Your task to perform on an android device: Open location settings Image 0: 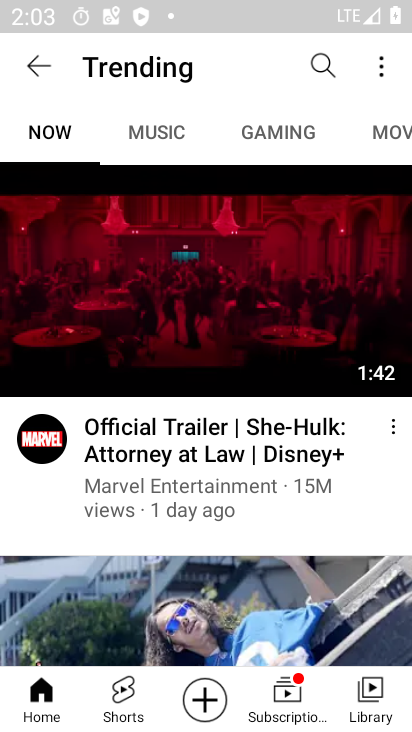
Step 0: press home button
Your task to perform on an android device: Open location settings Image 1: 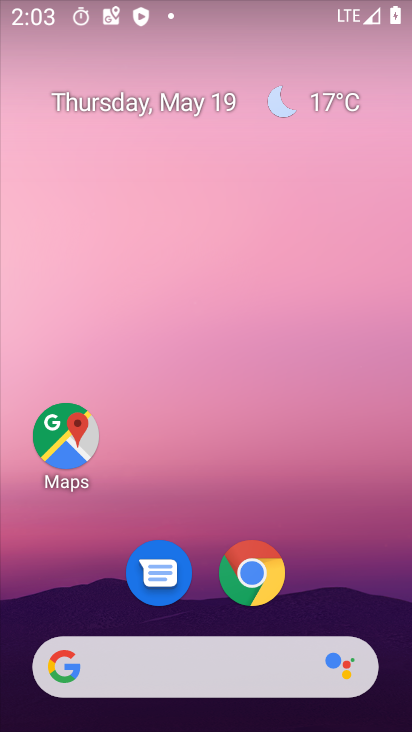
Step 1: drag from (197, 548) to (268, 89)
Your task to perform on an android device: Open location settings Image 2: 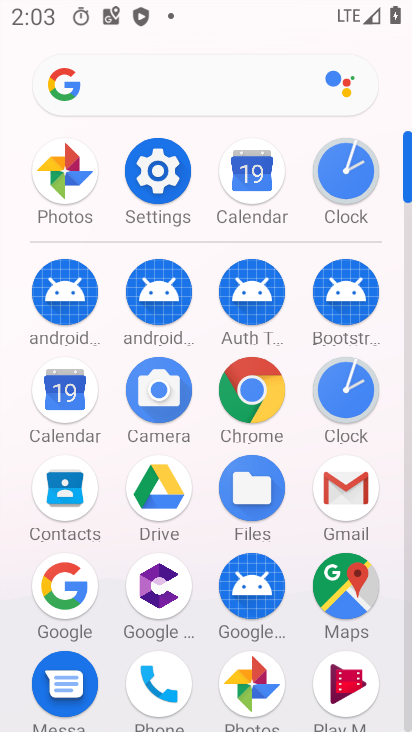
Step 2: click (167, 167)
Your task to perform on an android device: Open location settings Image 3: 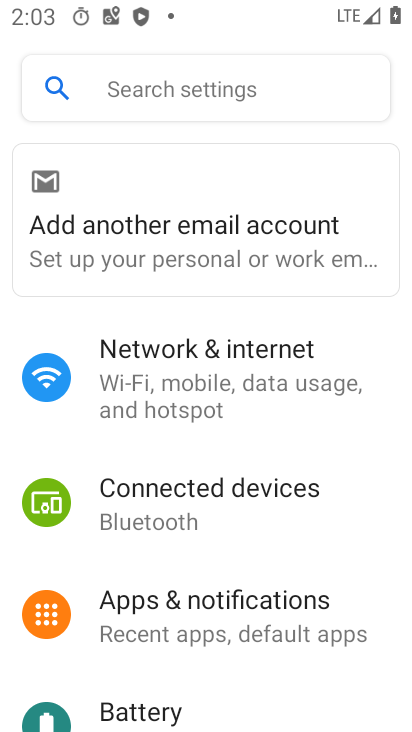
Step 3: drag from (228, 583) to (329, 112)
Your task to perform on an android device: Open location settings Image 4: 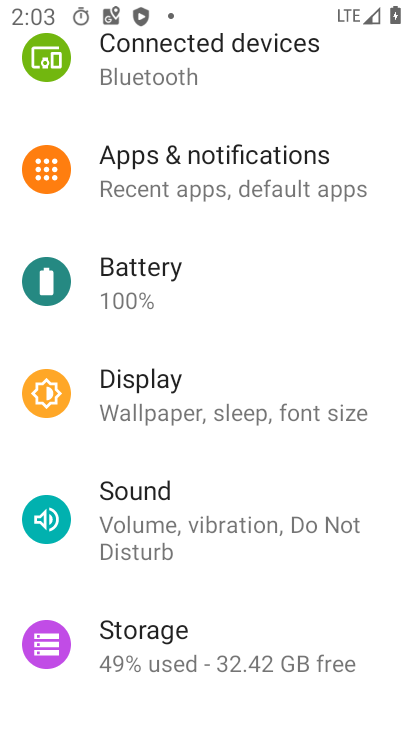
Step 4: drag from (236, 652) to (340, 115)
Your task to perform on an android device: Open location settings Image 5: 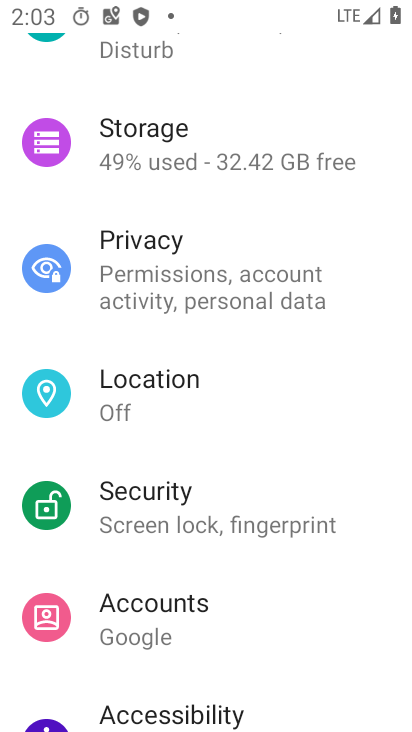
Step 5: click (143, 370)
Your task to perform on an android device: Open location settings Image 6: 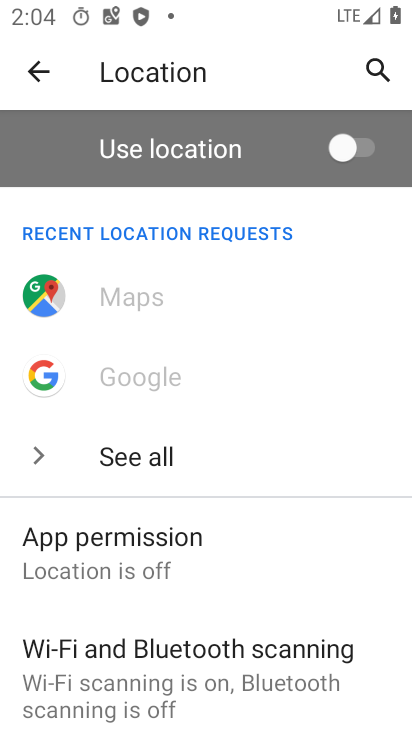
Step 6: task complete